Your task to perform on an android device: Show me the alarms in the clock app Image 0: 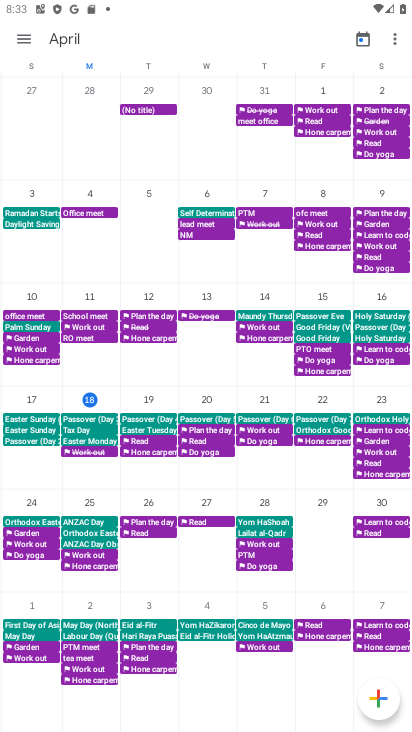
Step 0: press home button
Your task to perform on an android device: Show me the alarms in the clock app Image 1: 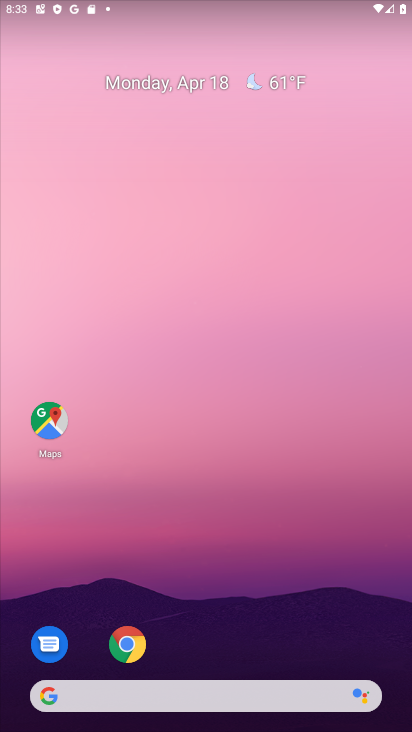
Step 1: drag from (103, 683) to (128, 107)
Your task to perform on an android device: Show me the alarms in the clock app Image 2: 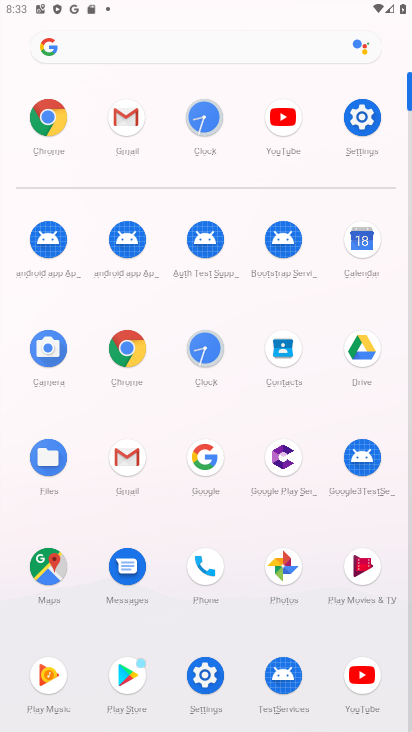
Step 2: click (197, 343)
Your task to perform on an android device: Show me the alarms in the clock app Image 3: 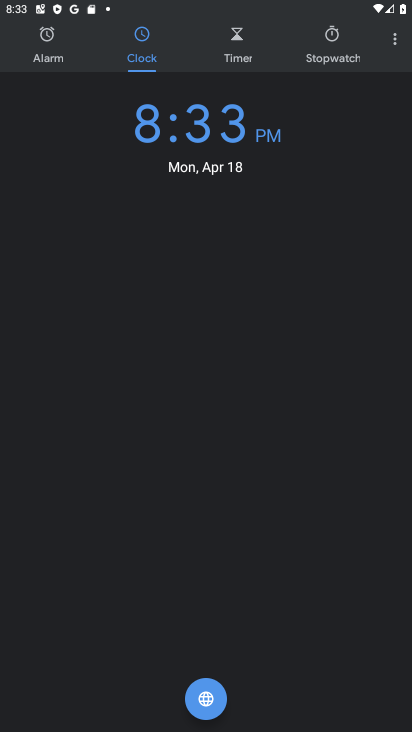
Step 3: click (49, 58)
Your task to perform on an android device: Show me the alarms in the clock app Image 4: 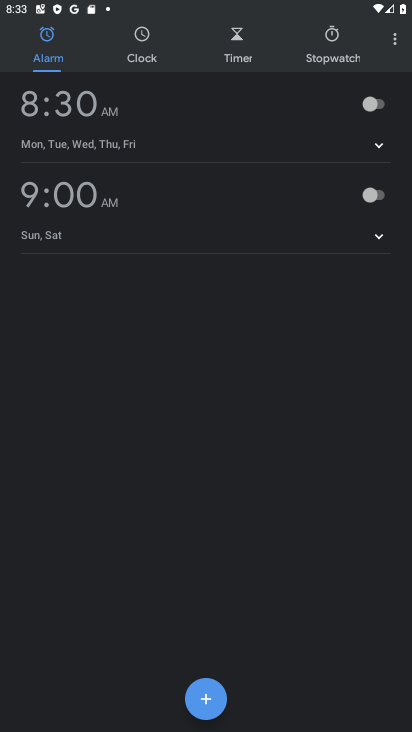
Step 4: task complete